Your task to perform on an android device: check storage Image 0: 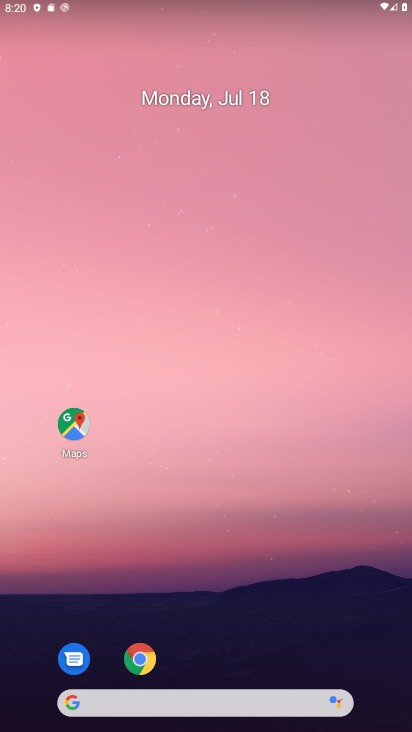
Step 0: drag from (244, 658) to (263, 118)
Your task to perform on an android device: check storage Image 1: 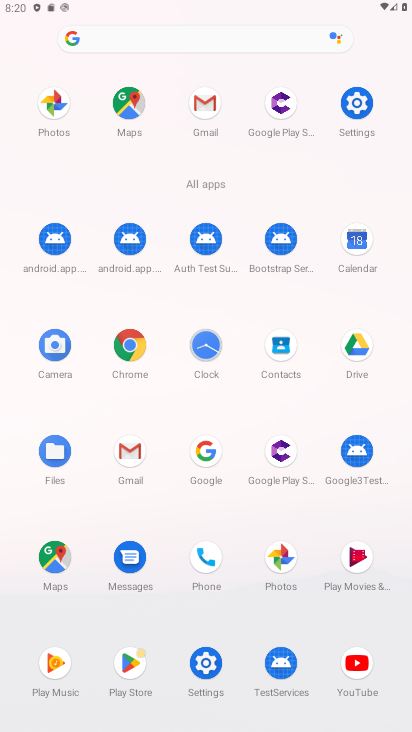
Step 1: click (351, 95)
Your task to perform on an android device: check storage Image 2: 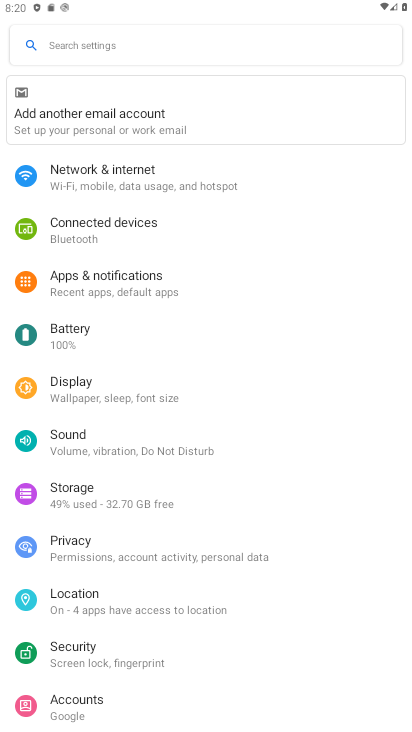
Step 2: click (78, 498)
Your task to perform on an android device: check storage Image 3: 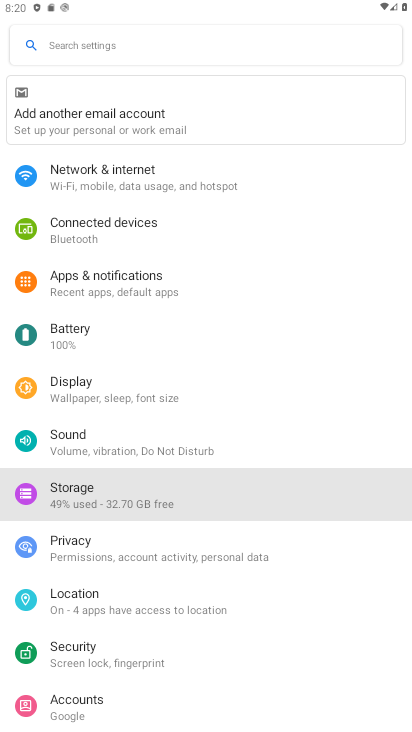
Step 3: click (78, 498)
Your task to perform on an android device: check storage Image 4: 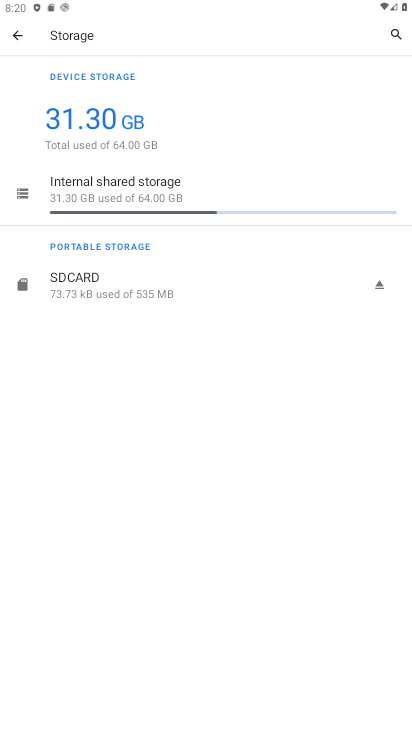
Step 4: task complete